Your task to perform on an android device: clear history in the chrome app Image 0: 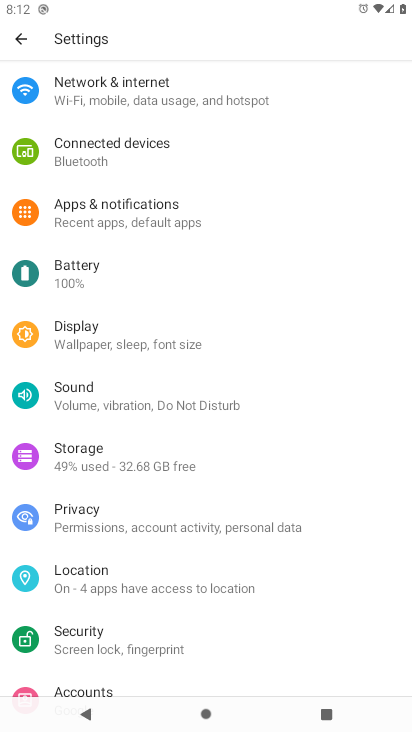
Step 0: press home button
Your task to perform on an android device: clear history in the chrome app Image 1: 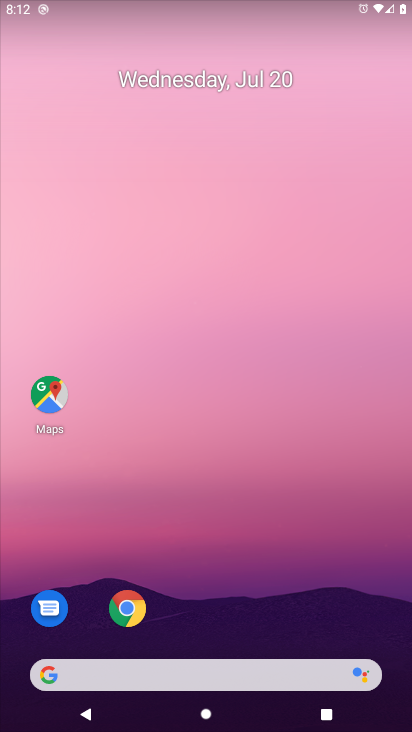
Step 1: click (129, 603)
Your task to perform on an android device: clear history in the chrome app Image 2: 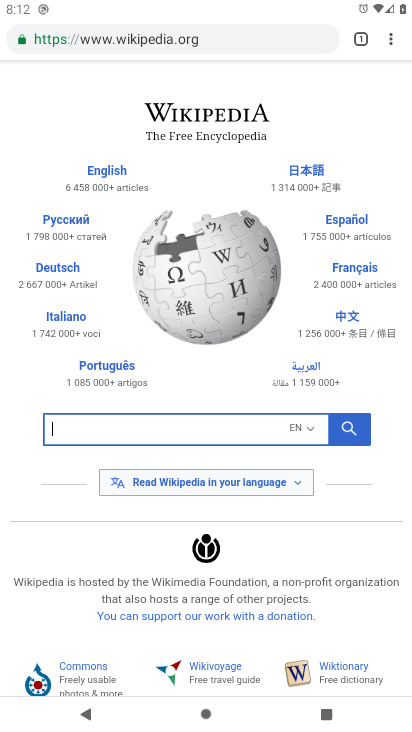
Step 2: click (395, 44)
Your task to perform on an android device: clear history in the chrome app Image 3: 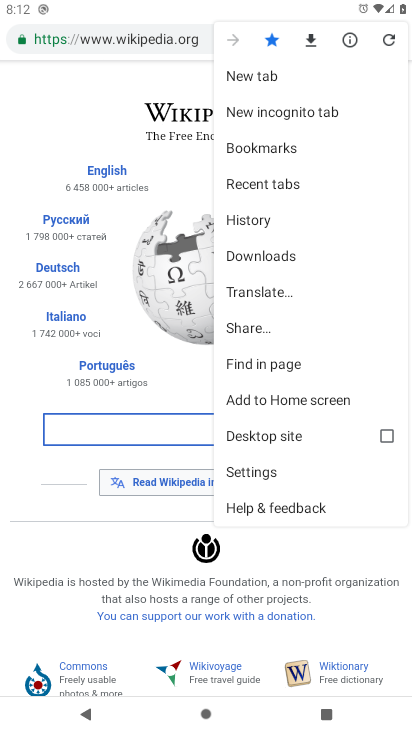
Step 3: click (259, 219)
Your task to perform on an android device: clear history in the chrome app Image 4: 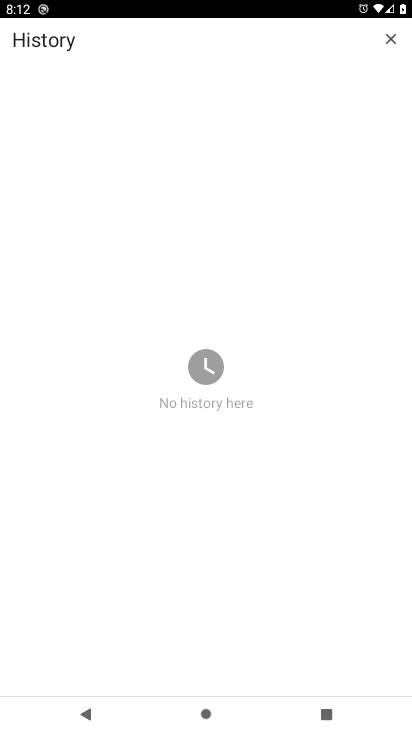
Step 4: task complete